Your task to perform on an android device: change the clock display to digital Image 0: 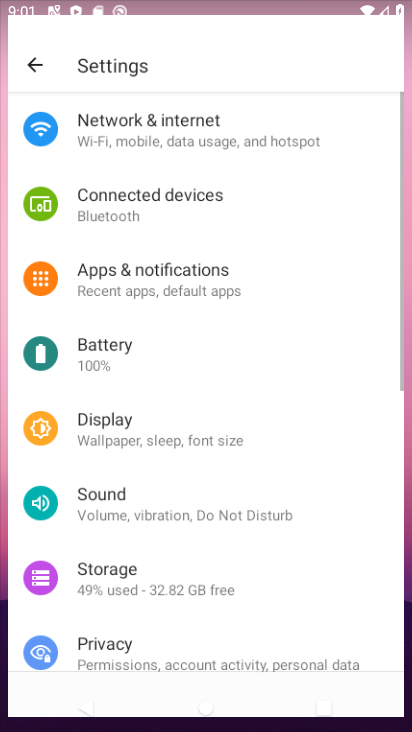
Step 0: press home button
Your task to perform on an android device: change the clock display to digital Image 1: 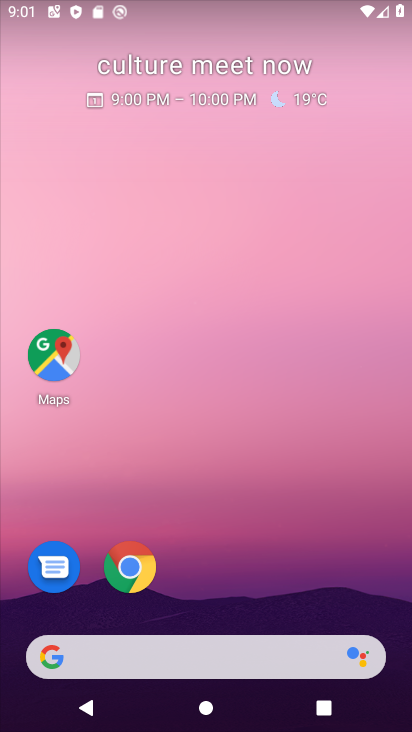
Step 1: drag from (189, 611) to (174, 36)
Your task to perform on an android device: change the clock display to digital Image 2: 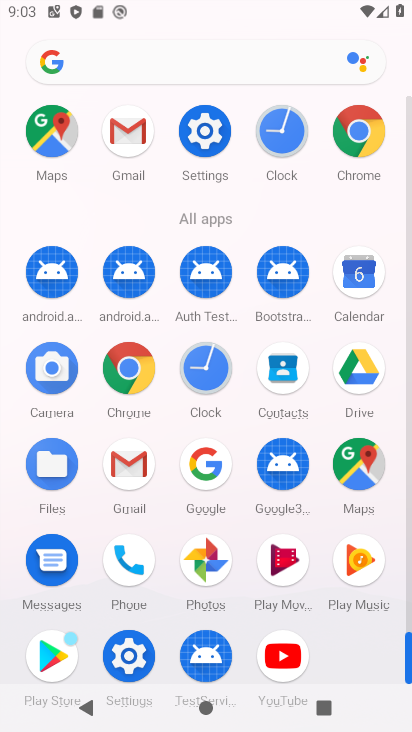
Step 2: click (292, 132)
Your task to perform on an android device: change the clock display to digital Image 3: 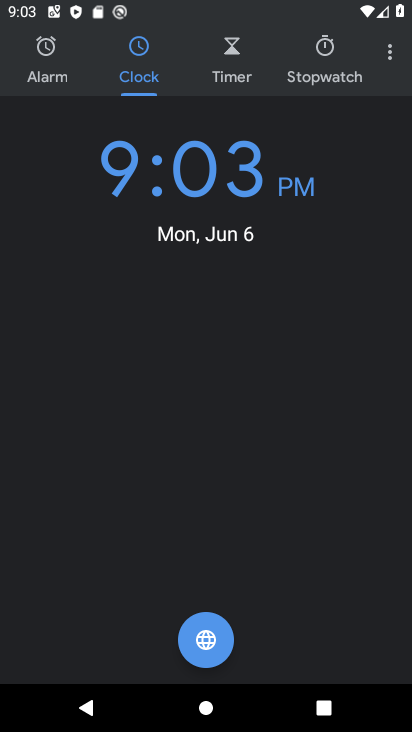
Step 3: click (392, 44)
Your task to perform on an android device: change the clock display to digital Image 4: 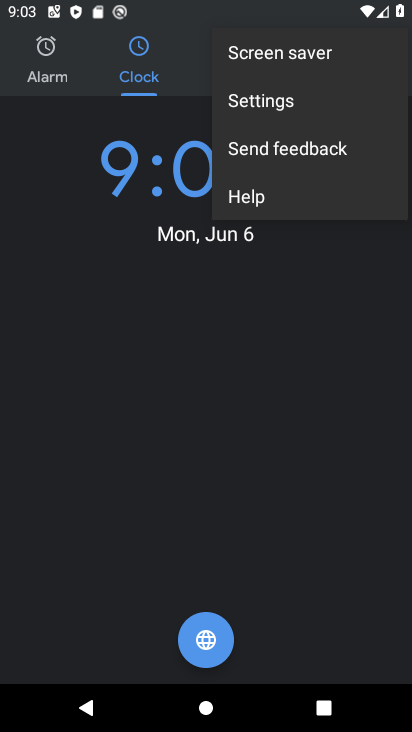
Step 4: click (279, 97)
Your task to perform on an android device: change the clock display to digital Image 5: 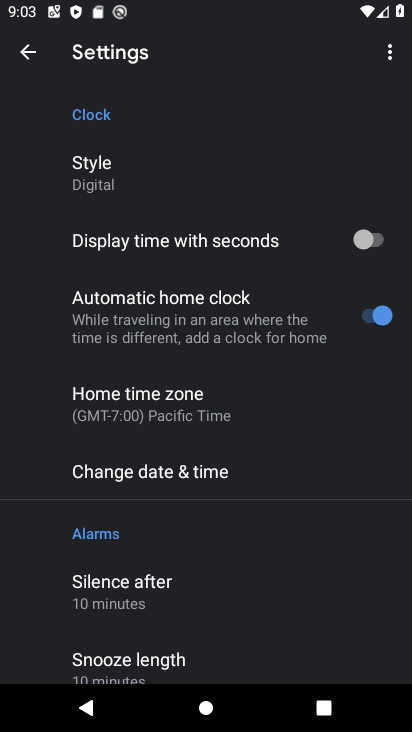
Step 5: task complete